Your task to perform on an android device: check the backup settings in the google photos Image 0: 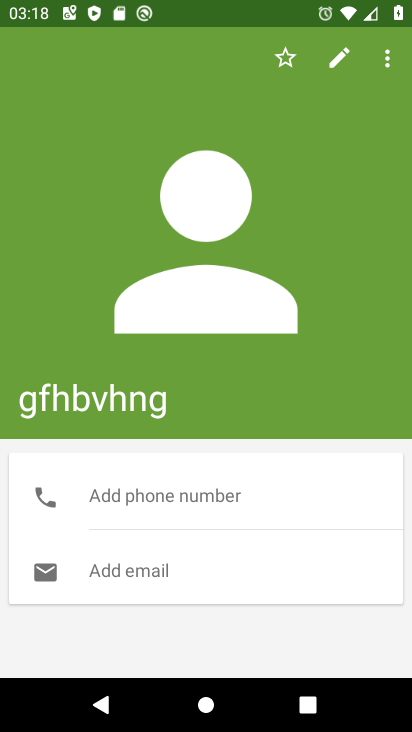
Step 0: task complete